Your task to perform on an android device: What's the weather today? Image 0: 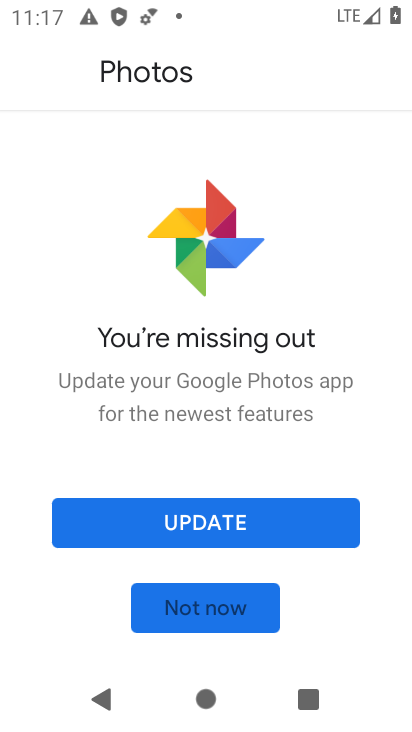
Step 0: press back button
Your task to perform on an android device: What's the weather today? Image 1: 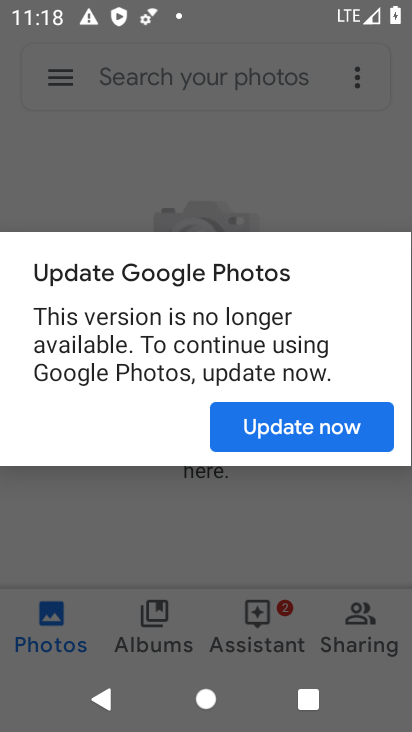
Step 1: press home button
Your task to perform on an android device: What's the weather today? Image 2: 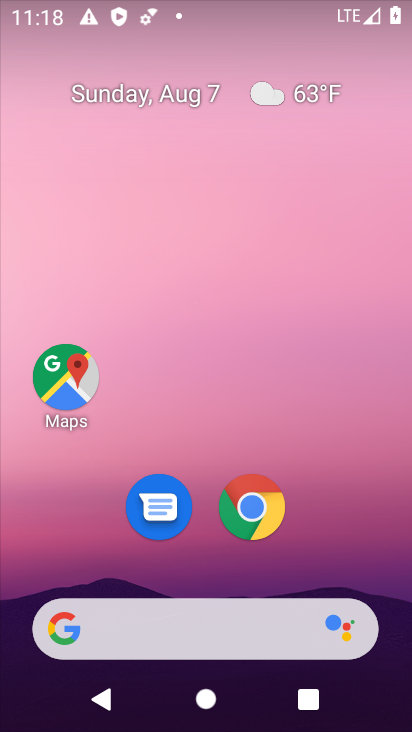
Step 2: click (300, 87)
Your task to perform on an android device: What's the weather today? Image 3: 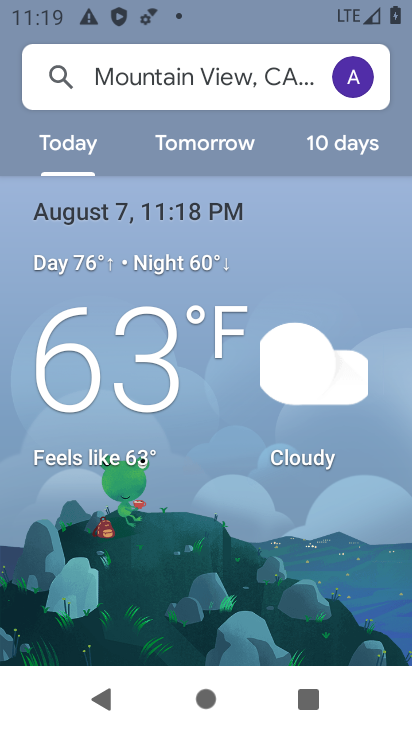
Step 3: task complete